Your task to perform on an android device: make emails show in primary in the gmail app Image 0: 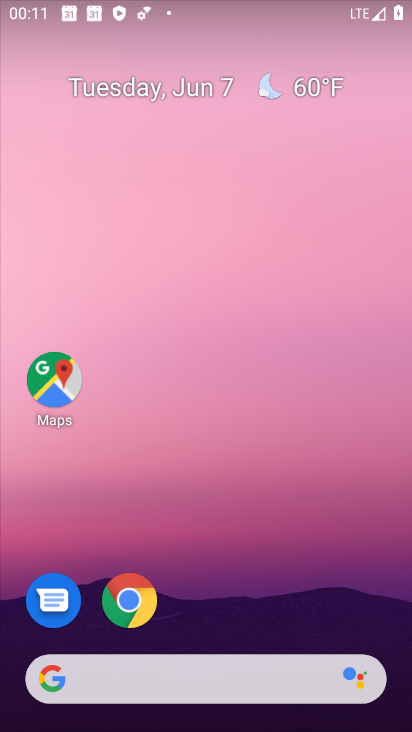
Step 0: drag from (202, 731) to (213, 219)
Your task to perform on an android device: make emails show in primary in the gmail app Image 1: 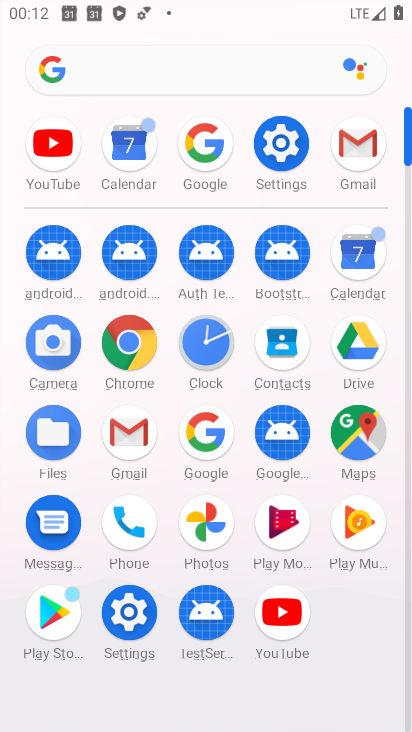
Step 1: click (126, 427)
Your task to perform on an android device: make emails show in primary in the gmail app Image 2: 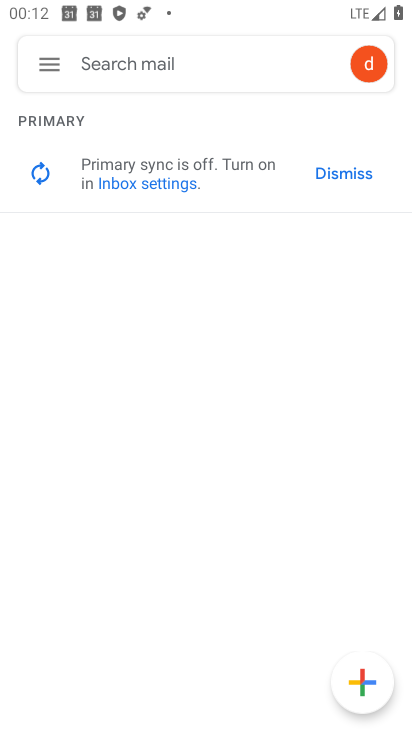
Step 2: click (47, 64)
Your task to perform on an android device: make emails show in primary in the gmail app Image 3: 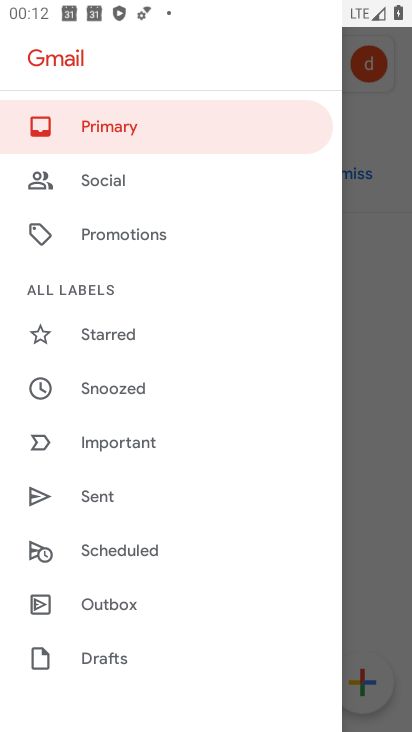
Step 3: drag from (170, 655) to (172, 258)
Your task to perform on an android device: make emails show in primary in the gmail app Image 4: 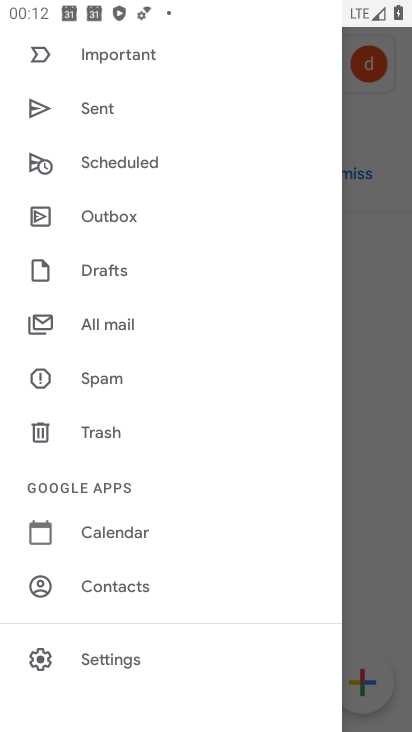
Step 4: click (105, 653)
Your task to perform on an android device: make emails show in primary in the gmail app Image 5: 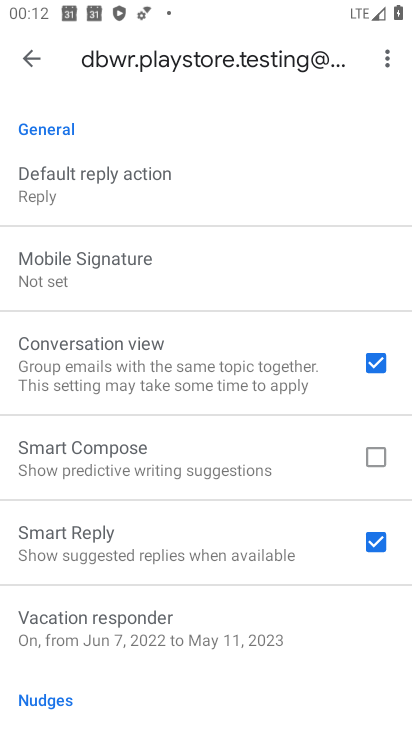
Step 5: drag from (167, 681) to (161, 347)
Your task to perform on an android device: make emails show in primary in the gmail app Image 6: 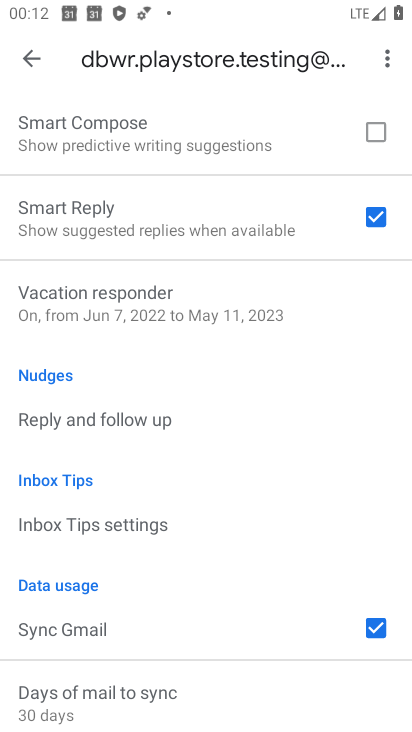
Step 6: drag from (137, 637) to (157, 220)
Your task to perform on an android device: make emails show in primary in the gmail app Image 7: 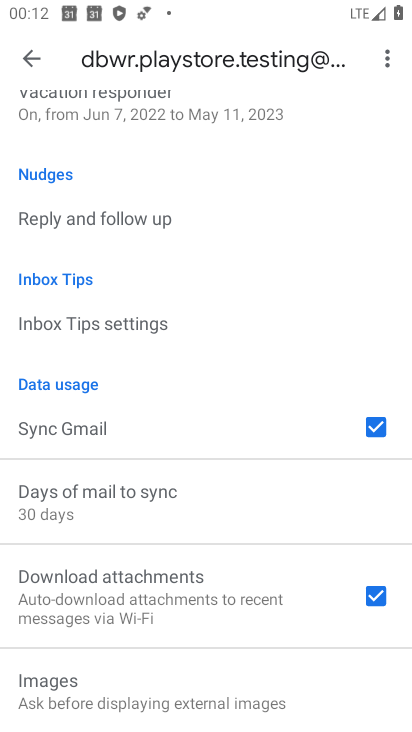
Step 7: drag from (176, 219) to (224, 677)
Your task to perform on an android device: make emails show in primary in the gmail app Image 8: 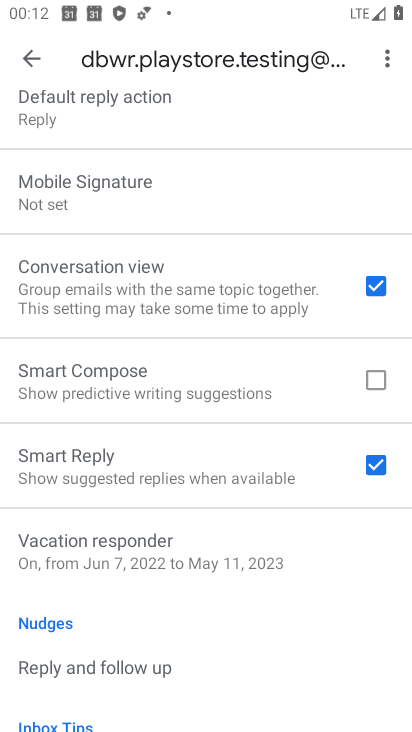
Step 8: drag from (205, 153) to (213, 642)
Your task to perform on an android device: make emails show in primary in the gmail app Image 9: 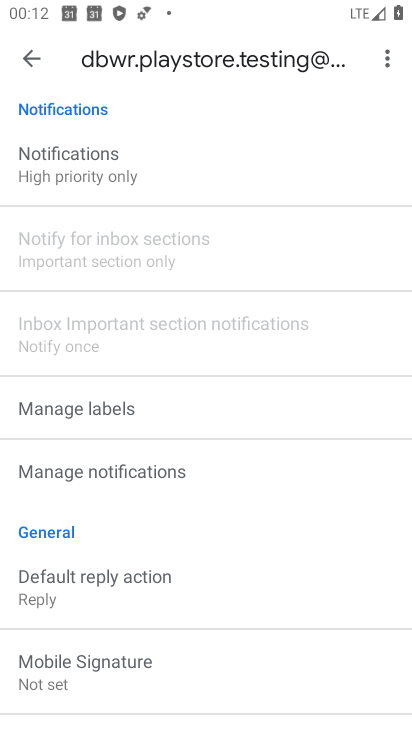
Step 9: drag from (216, 186) to (218, 580)
Your task to perform on an android device: make emails show in primary in the gmail app Image 10: 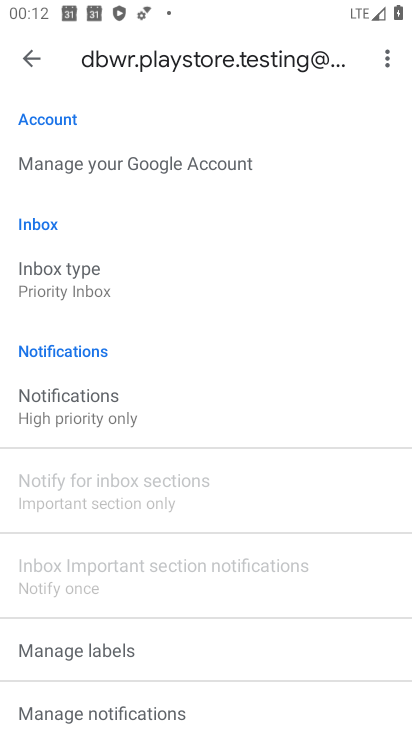
Step 10: click (57, 276)
Your task to perform on an android device: make emails show in primary in the gmail app Image 11: 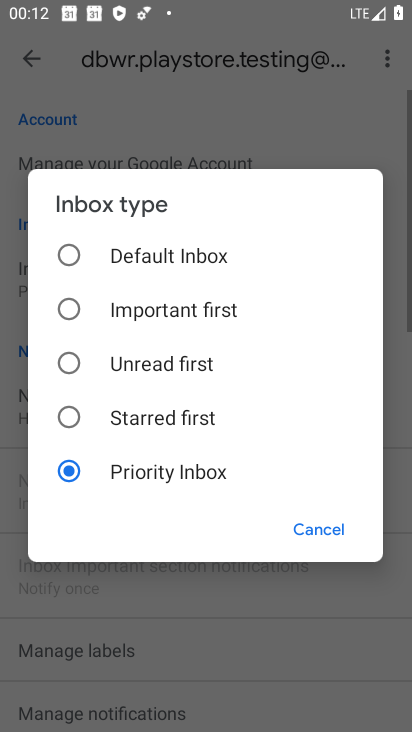
Step 11: click (65, 253)
Your task to perform on an android device: make emails show in primary in the gmail app Image 12: 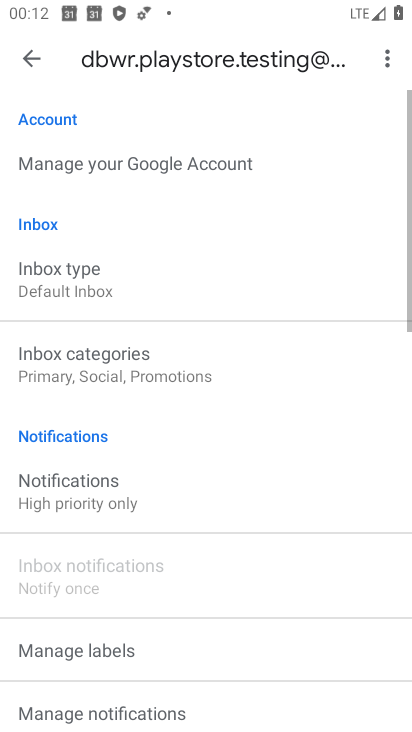
Step 12: click (115, 375)
Your task to perform on an android device: make emails show in primary in the gmail app Image 13: 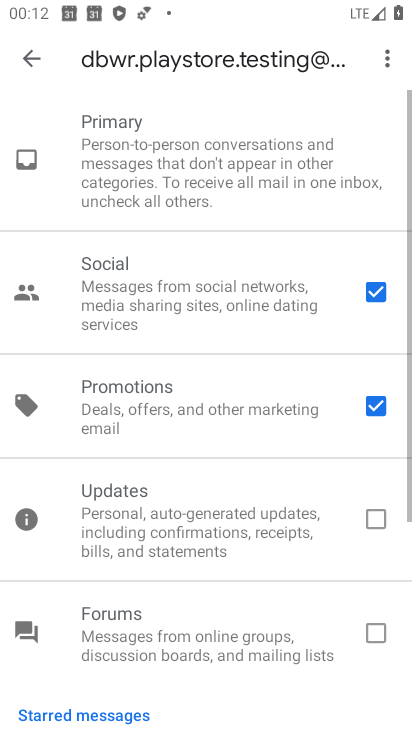
Step 13: click (379, 404)
Your task to perform on an android device: make emails show in primary in the gmail app Image 14: 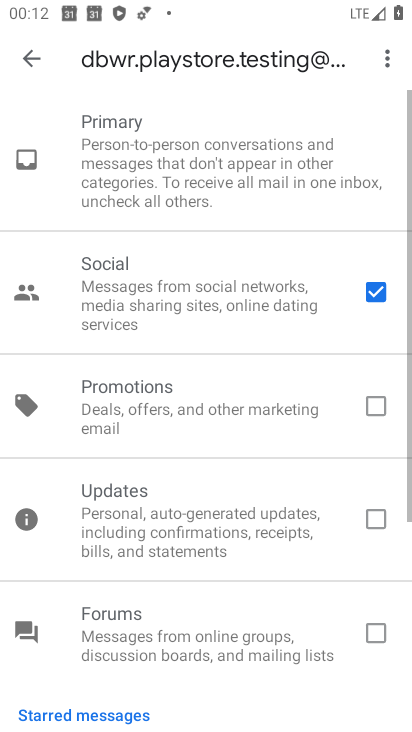
Step 14: click (374, 287)
Your task to perform on an android device: make emails show in primary in the gmail app Image 15: 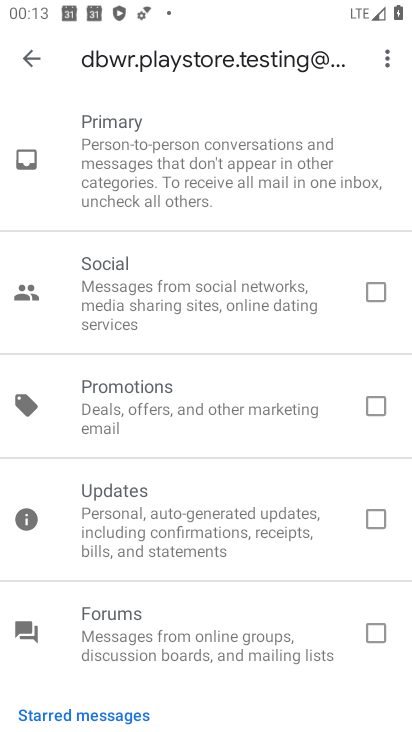
Step 15: click (30, 53)
Your task to perform on an android device: make emails show in primary in the gmail app Image 16: 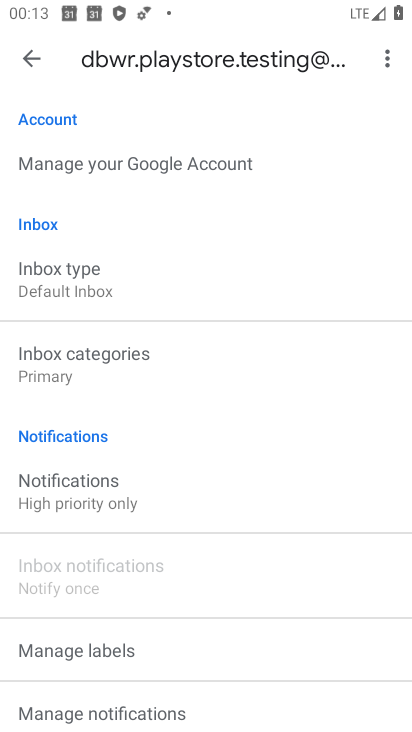
Step 16: task complete